Your task to perform on an android device: Go to accessibility settings Image 0: 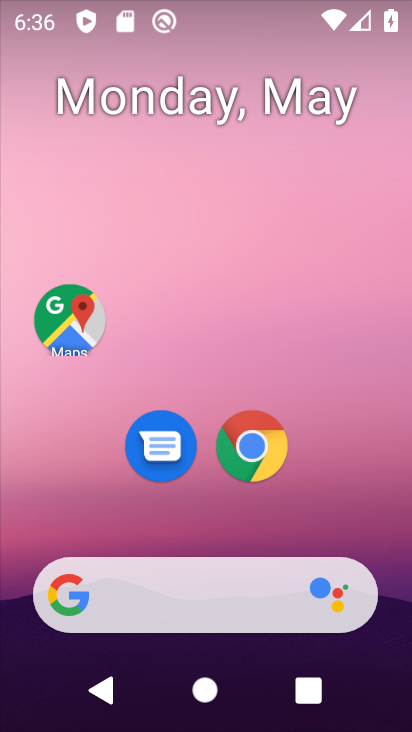
Step 0: drag from (322, 513) to (214, 123)
Your task to perform on an android device: Go to accessibility settings Image 1: 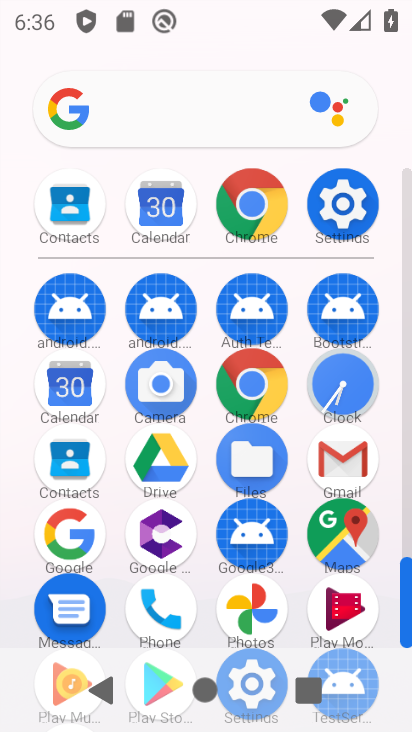
Step 1: click (340, 191)
Your task to perform on an android device: Go to accessibility settings Image 2: 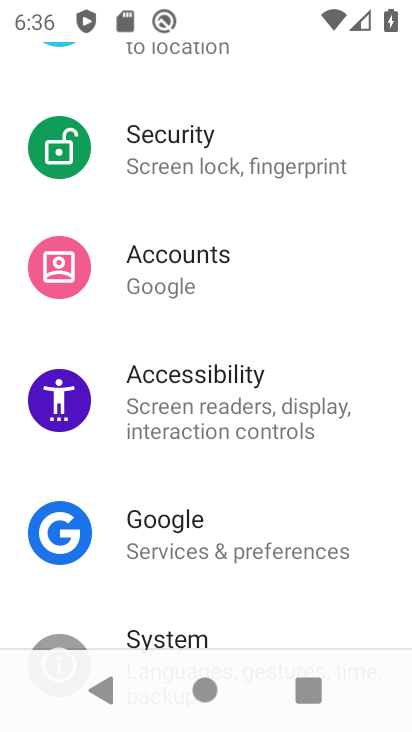
Step 2: click (182, 377)
Your task to perform on an android device: Go to accessibility settings Image 3: 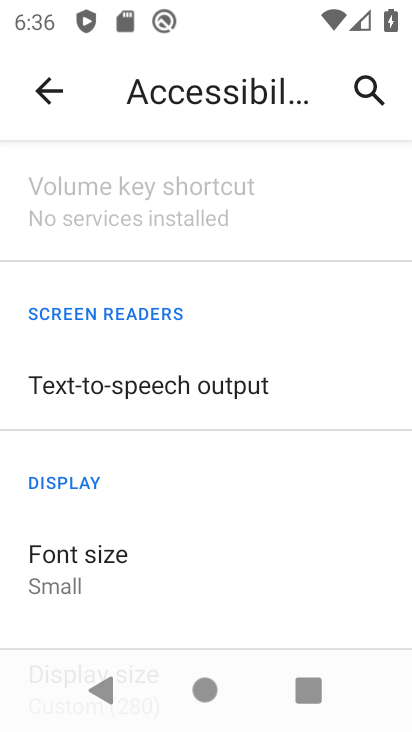
Step 3: task complete